Your task to perform on an android device: open the mobile data screen to see how much data has been used Image 0: 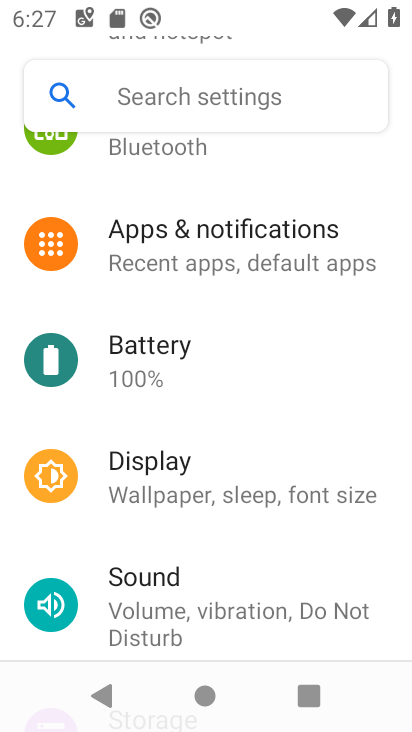
Step 0: press home button
Your task to perform on an android device: open the mobile data screen to see how much data has been used Image 1: 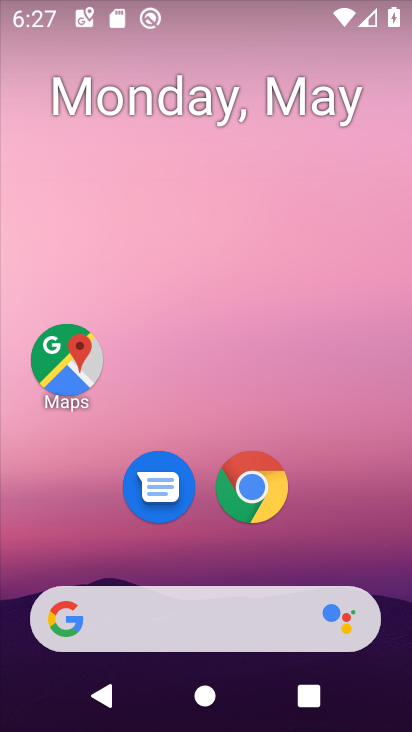
Step 1: drag from (214, 548) to (292, 104)
Your task to perform on an android device: open the mobile data screen to see how much data has been used Image 2: 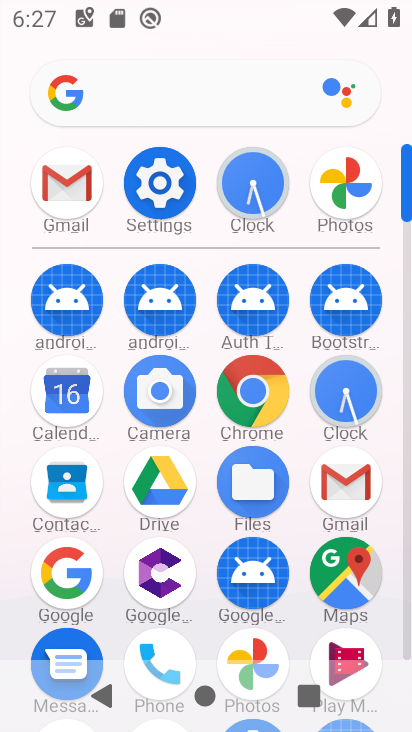
Step 2: click (160, 181)
Your task to perform on an android device: open the mobile data screen to see how much data has been used Image 3: 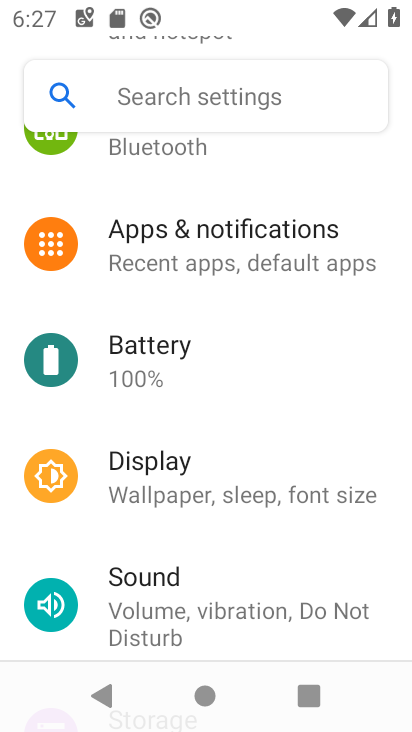
Step 3: drag from (198, 196) to (193, 382)
Your task to perform on an android device: open the mobile data screen to see how much data has been used Image 4: 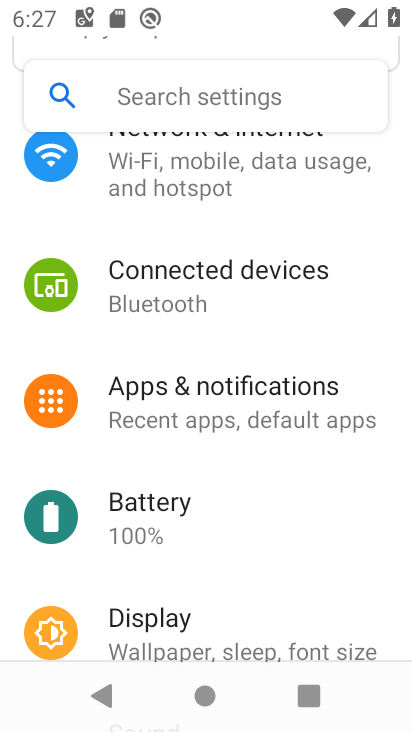
Step 4: click (233, 161)
Your task to perform on an android device: open the mobile data screen to see how much data has been used Image 5: 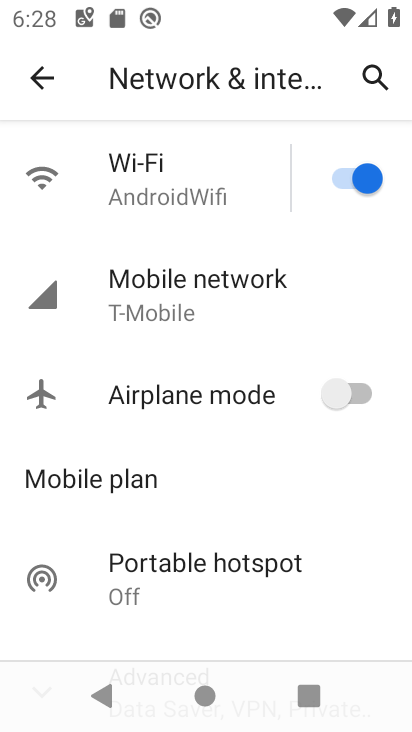
Step 5: click (225, 305)
Your task to perform on an android device: open the mobile data screen to see how much data has been used Image 6: 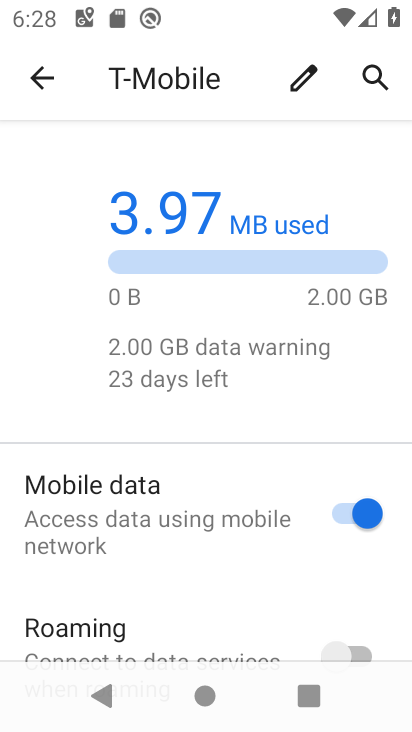
Step 6: drag from (199, 563) to (244, 96)
Your task to perform on an android device: open the mobile data screen to see how much data has been used Image 7: 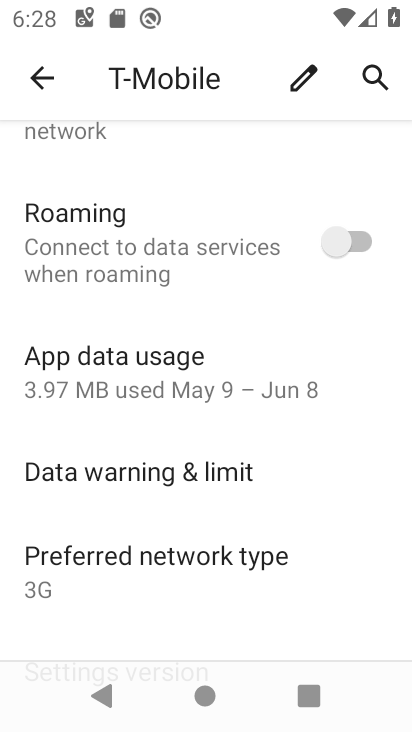
Step 7: click (199, 362)
Your task to perform on an android device: open the mobile data screen to see how much data has been used Image 8: 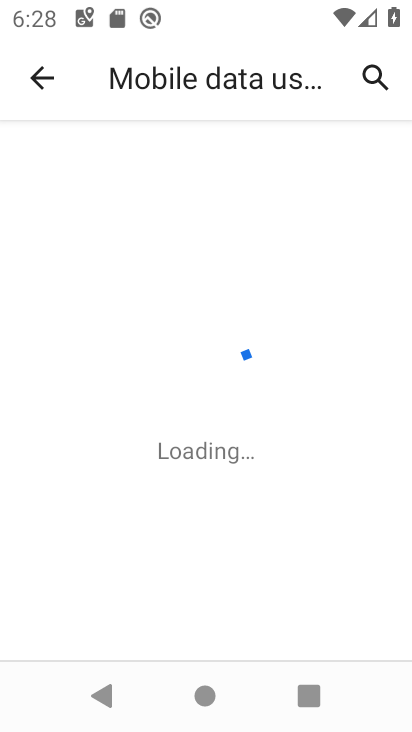
Step 8: task complete